Your task to perform on an android device: toggle sleep mode Image 0: 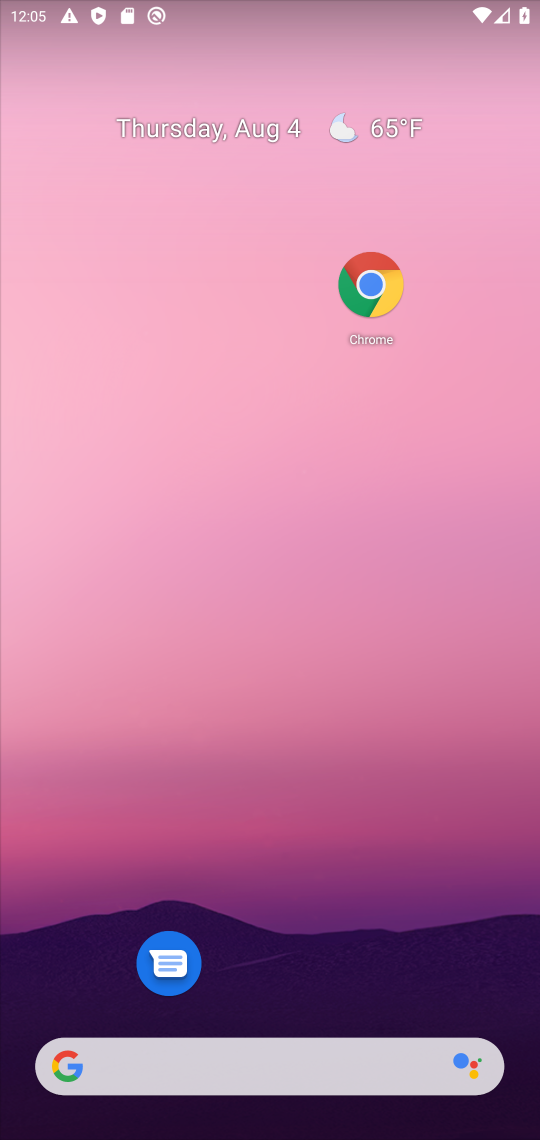
Step 0: drag from (272, 991) to (275, 516)
Your task to perform on an android device: toggle sleep mode Image 1: 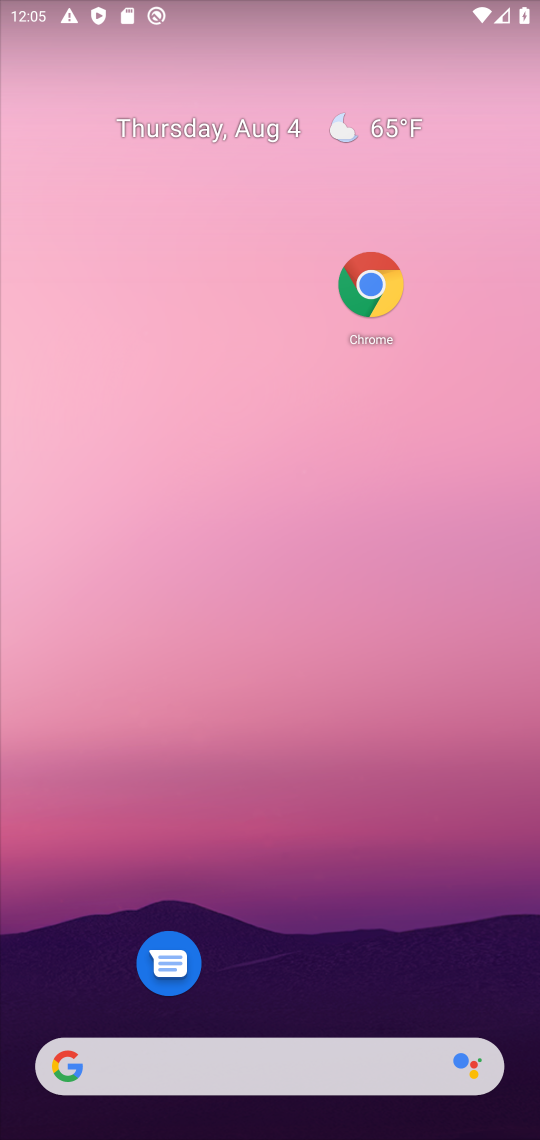
Step 1: drag from (267, 892) to (265, 311)
Your task to perform on an android device: toggle sleep mode Image 2: 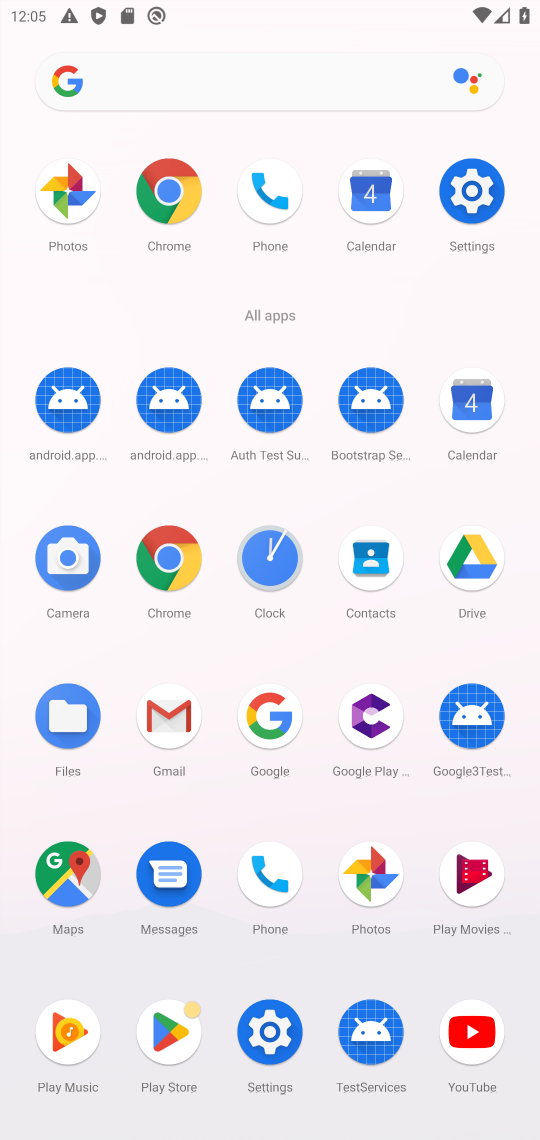
Step 2: click (487, 168)
Your task to perform on an android device: toggle sleep mode Image 3: 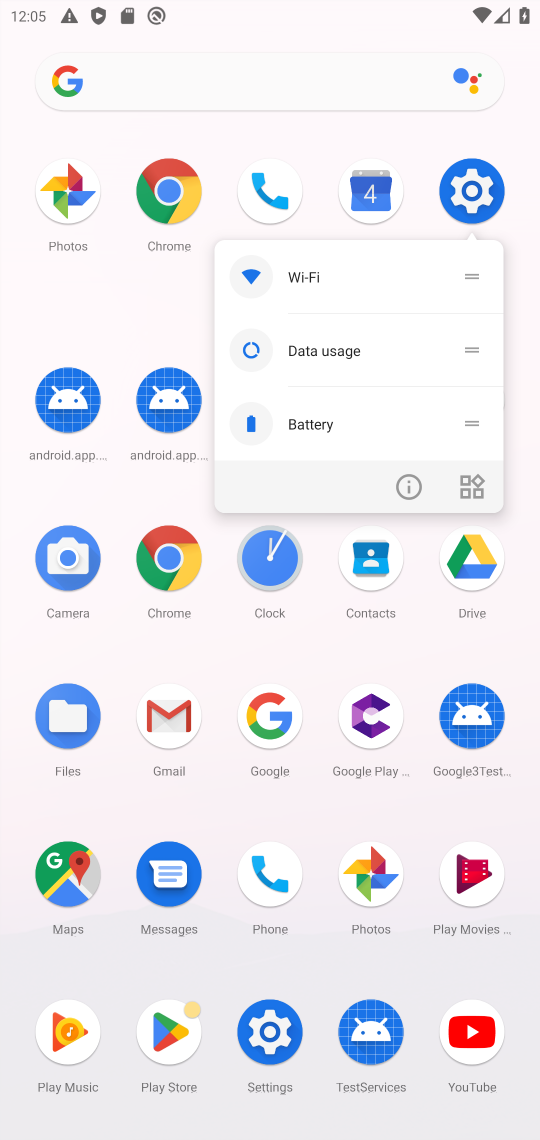
Step 3: click (460, 184)
Your task to perform on an android device: toggle sleep mode Image 4: 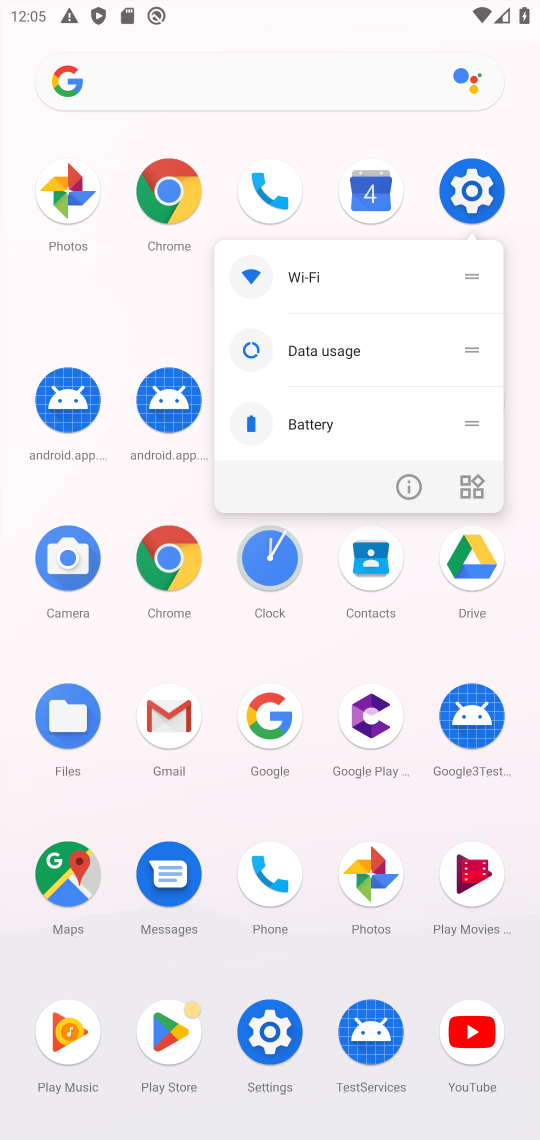
Step 4: click (460, 184)
Your task to perform on an android device: toggle sleep mode Image 5: 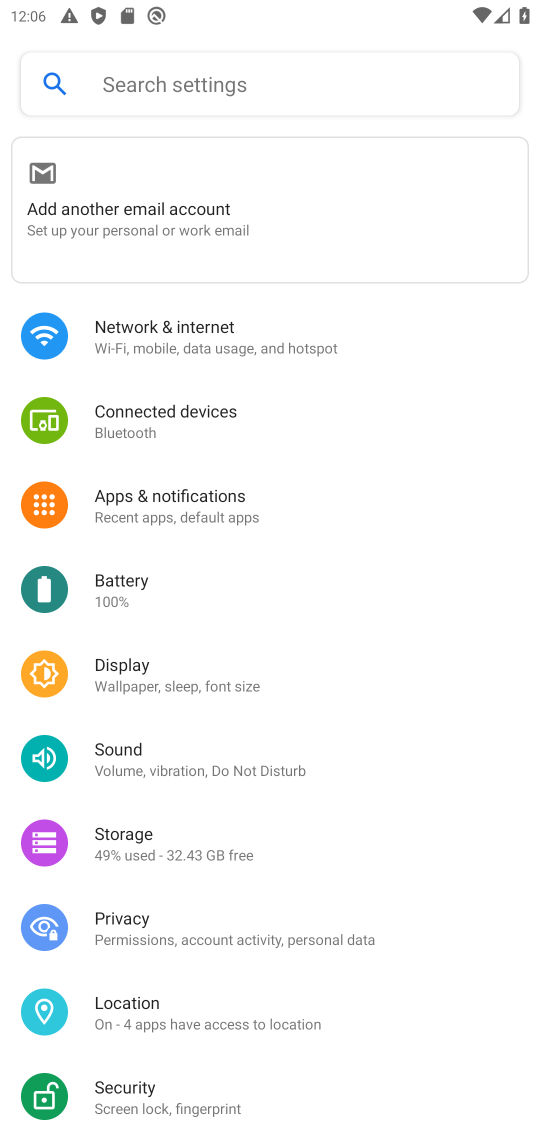
Step 5: task complete